Your task to perform on an android device: open app "Adobe Acrobat Reader: Edit PDF" (install if not already installed) Image 0: 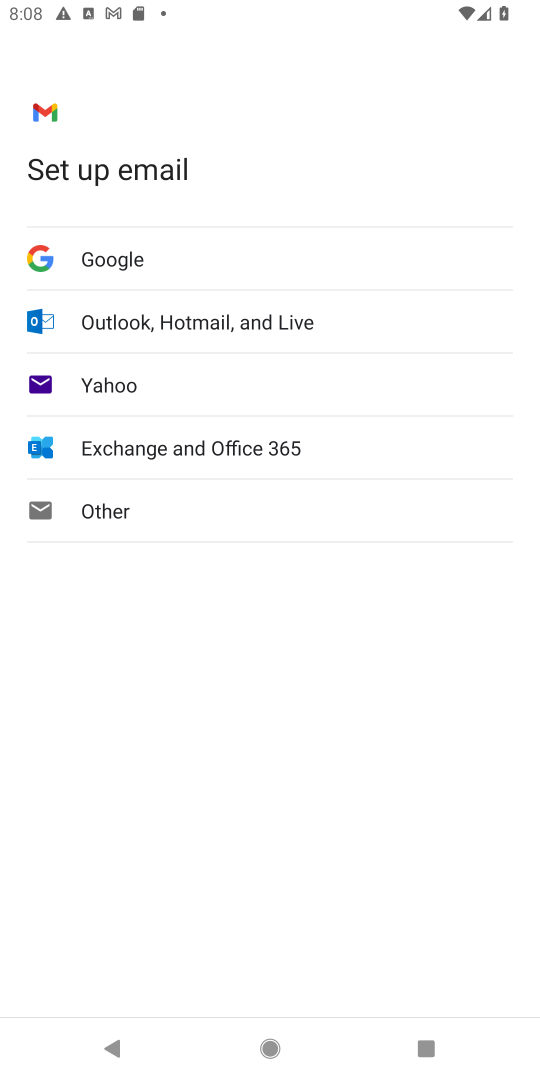
Step 0: press home button
Your task to perform on an android device: open app "Adobe Acrobat Reader: Edit PDF" (install if not already installed) Image 1: 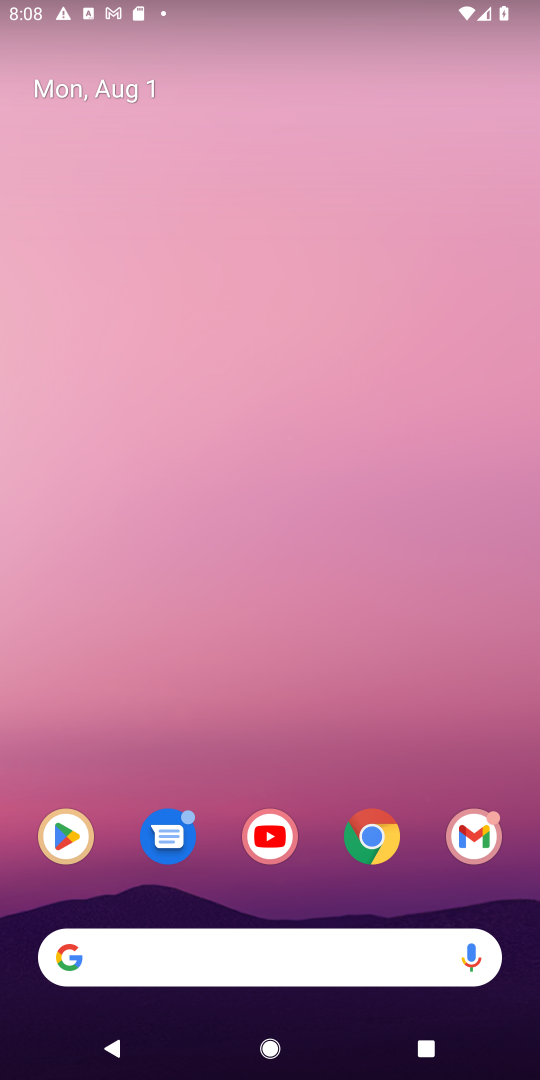
Step 1: click (53, 846)
Your task to perform on an android device: open app "Adobe Acrobat Reader: Edit PDF" (install if not already installed) Image 2: 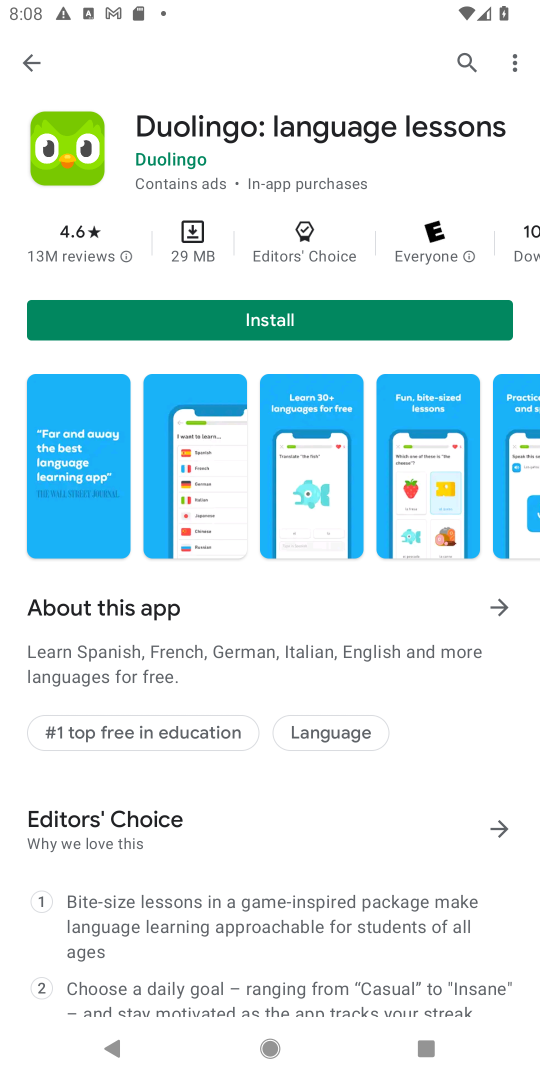
Step 2: click (470, 52)
Your task to perform on an android device: open app "Adobe Acrobat Reader: Edit PDF" (install if not already installed) Image 3: 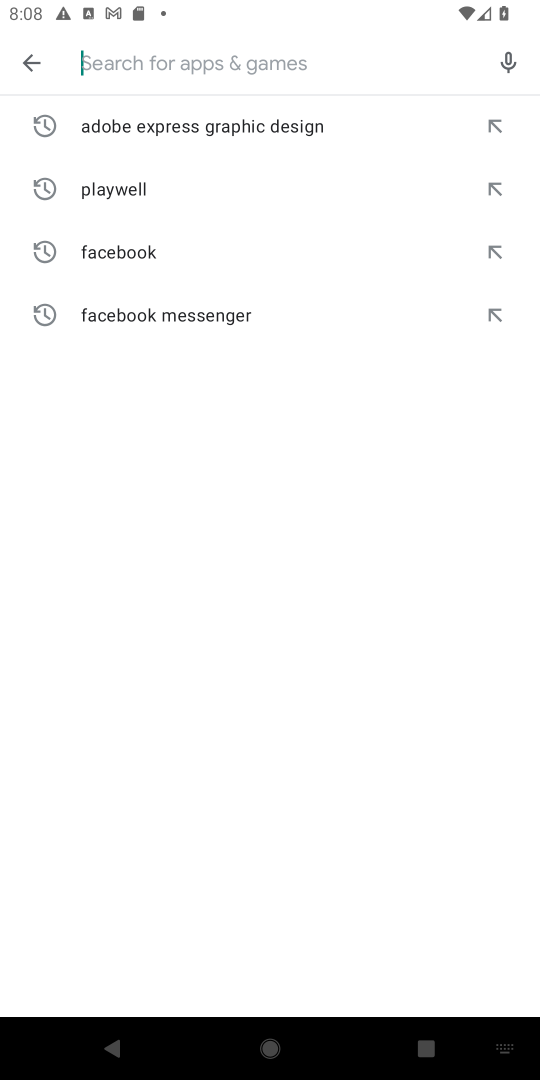
Step 3: type "Adobe Acrobat Reader: Edit PDF"
Your task to perform on an android device: open app "Adobe Acrobat Reader: Edit PDF" (install if not already installed) Image 4: 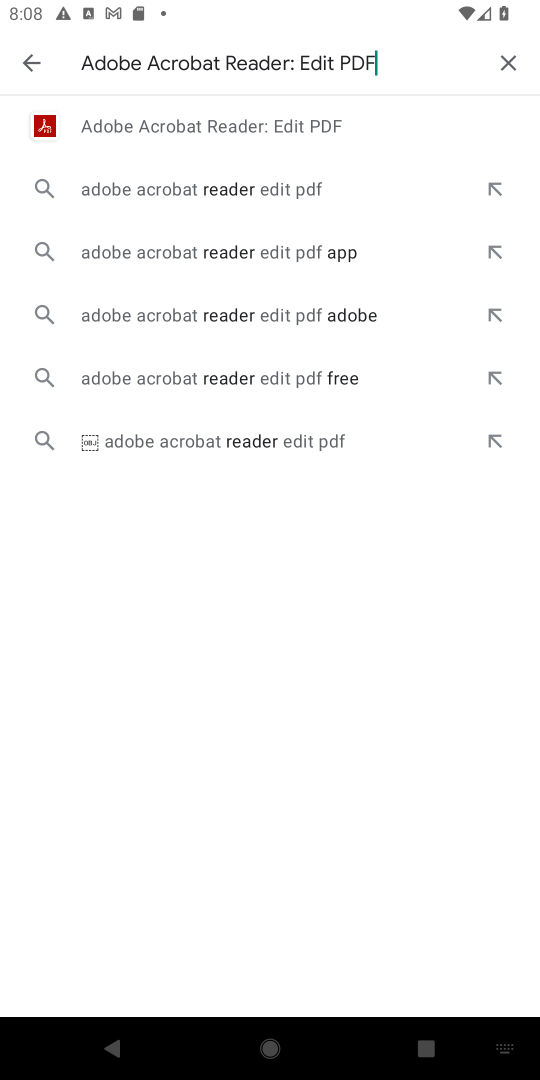
Step 4: click (252, 130)
Your task to perform on an android device: open app "Adobe Acrobat Reader: Edit PDF" (install if not already installed) Image 5: 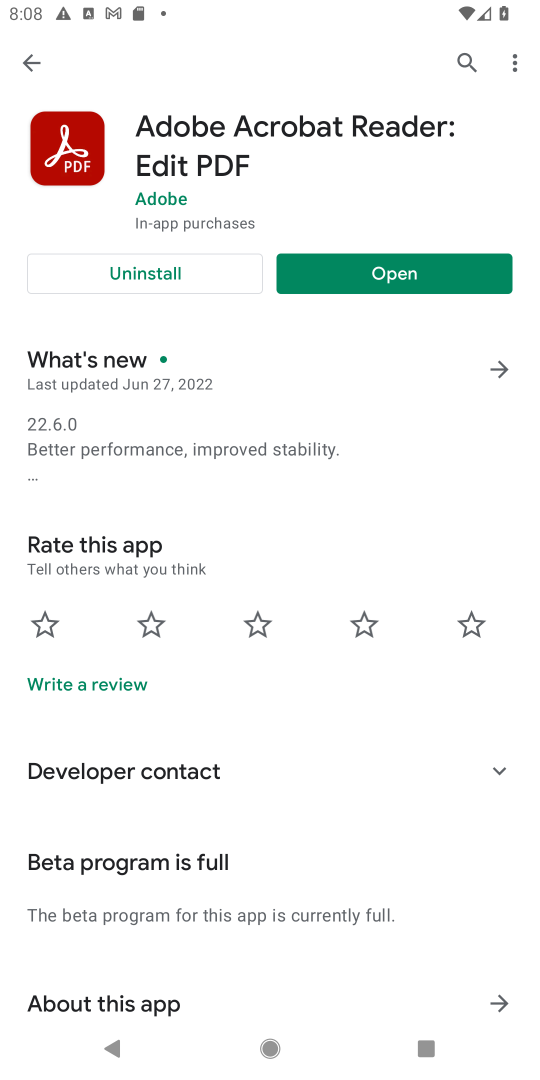
Step 5: click (407, 276)
Your task to perform on an android device: open app "Adobe Acrobat Reader: Edit PDF" (install if not already installed) Image 6: 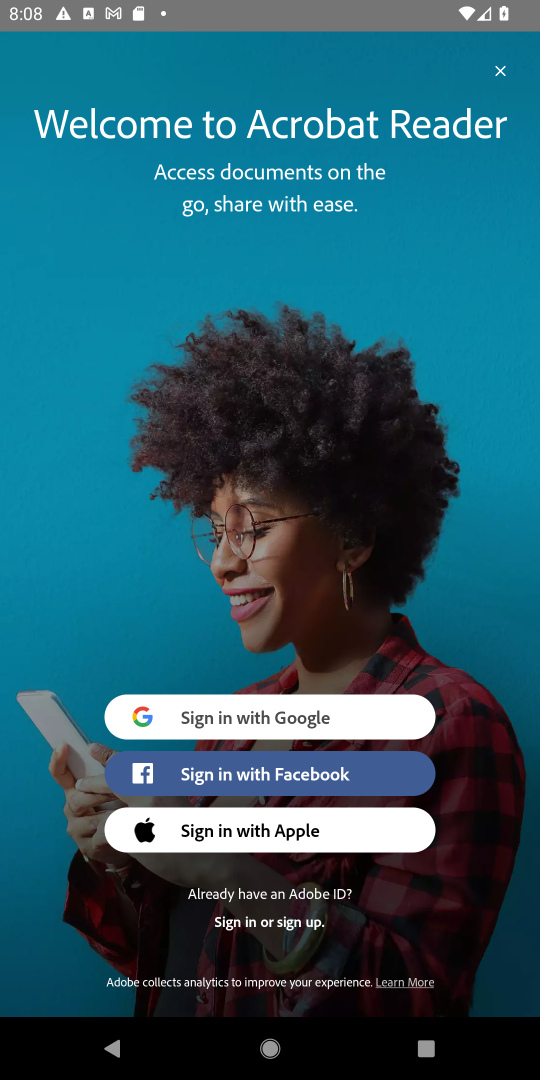
Step 6: task complete